Your task to perform on an android device: toggle pop-ups in chrome Image 0: 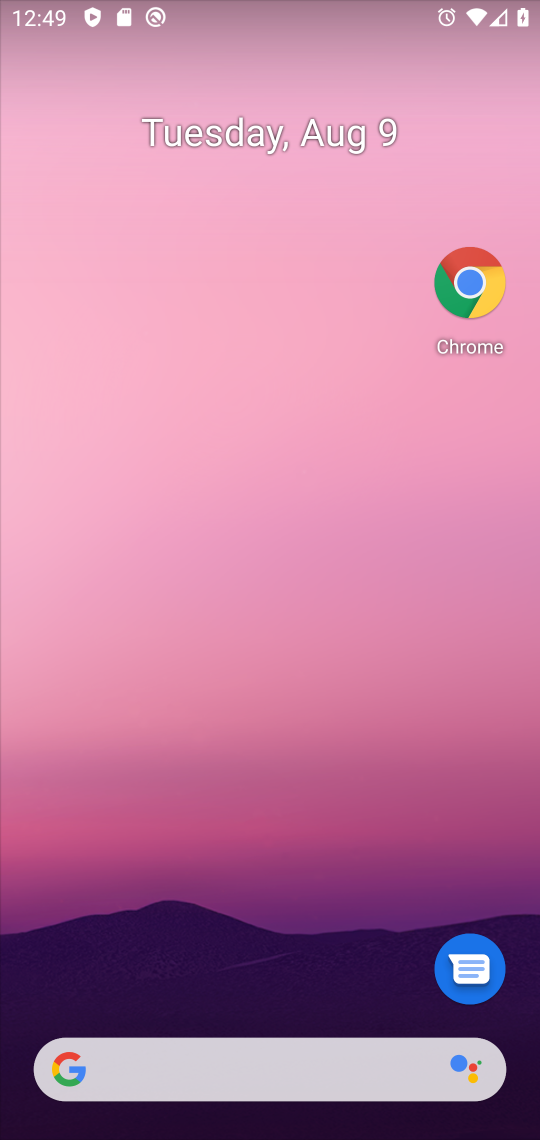
Step 0: drag from (268, 1045) to (354, 86)
Your task to perform on an android device: toggle pop-ups in chrome Image 1: 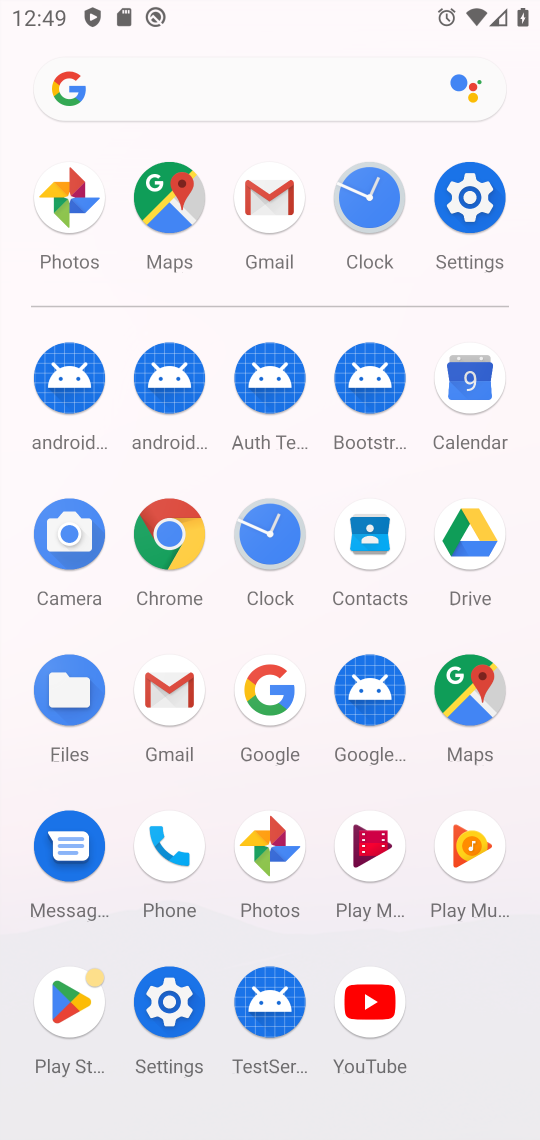
Step 1: click (158, 518)
Your task to perform on an android device: toggle pop-ups in chrome Image 2: 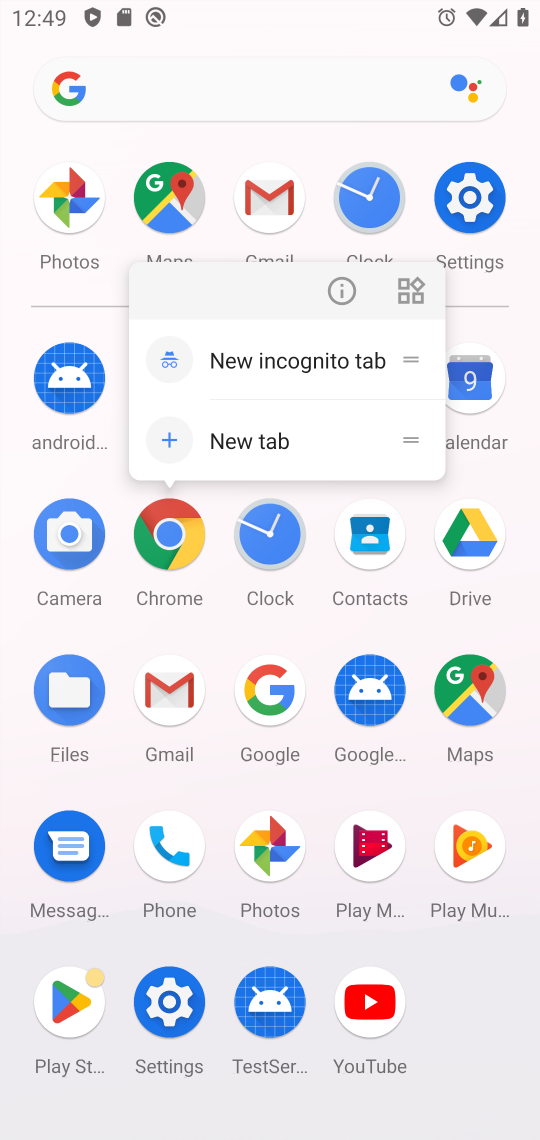
Step 2: click (343, 271)
Your task to perform on an android device: toggle pop-ups in chrome Image 3: 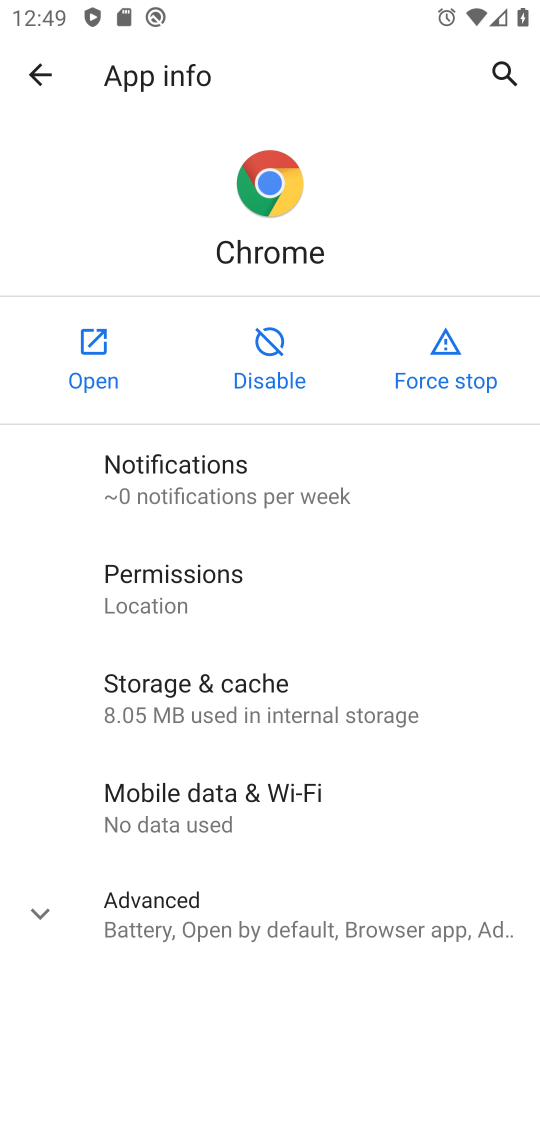
Step 3: click (100, 351)
Your task to perform on an android device: toggle pop-ups in chrome Image 4: 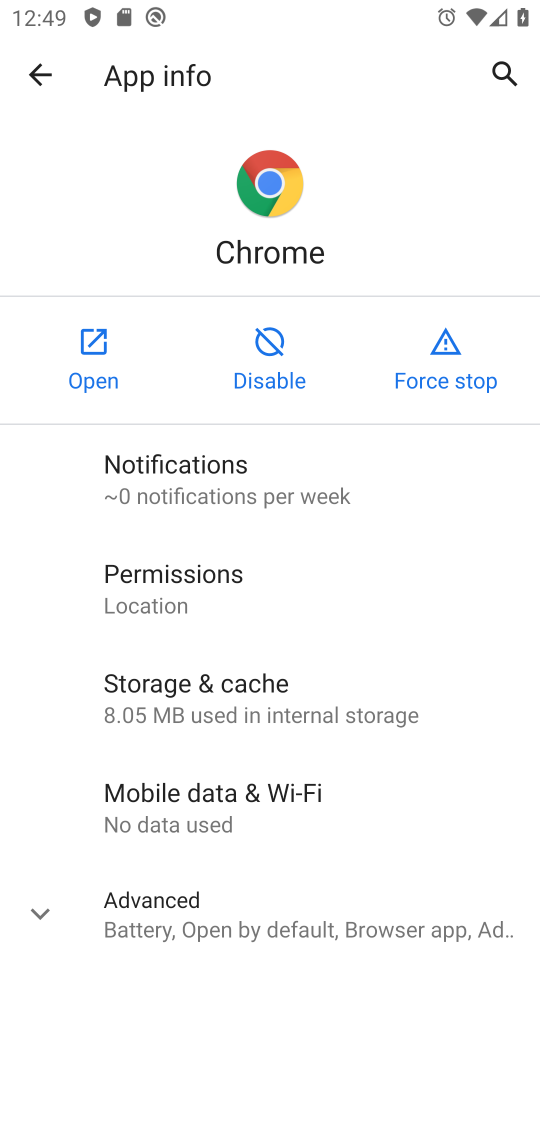
Step 4: click (100, 351)
Your task to perform on an android device: toggle pop-ups in chrome Image 5: 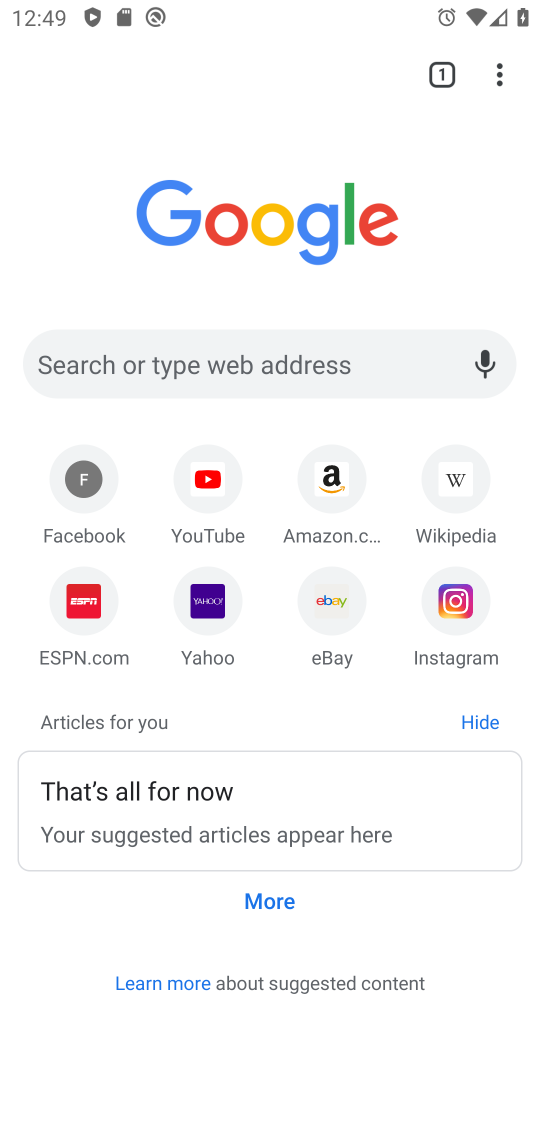
Step 5: drag from (490, 62) to (276, 630)
Your task to perform on an android device: toggle pop-ups in chrome Image 6: 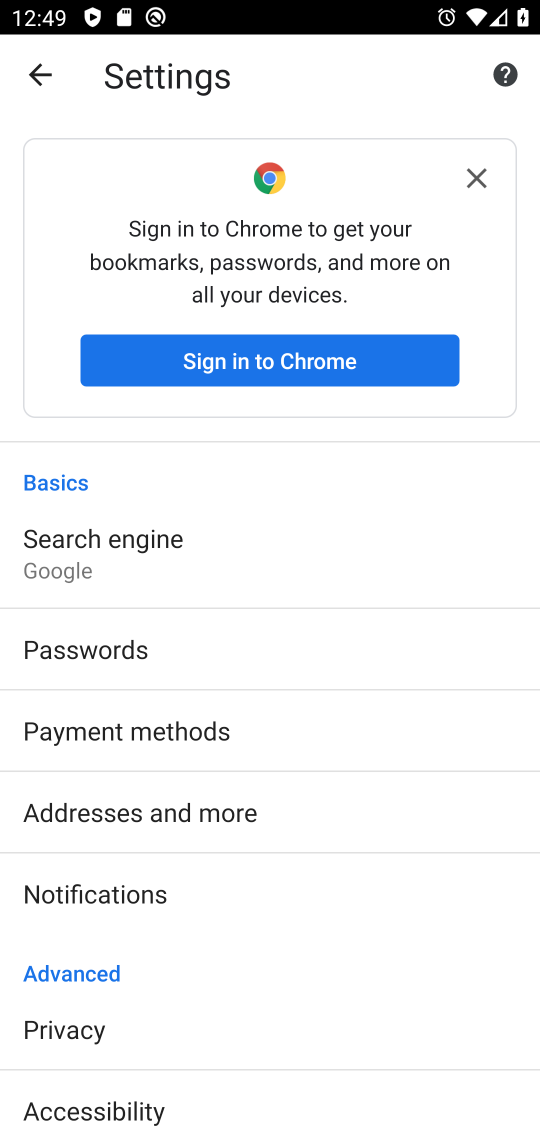
Step 6: drag from (234, 841) to (300, 406)
Your task to perform on an android device: toggle pop-ups in chrome Image 7: 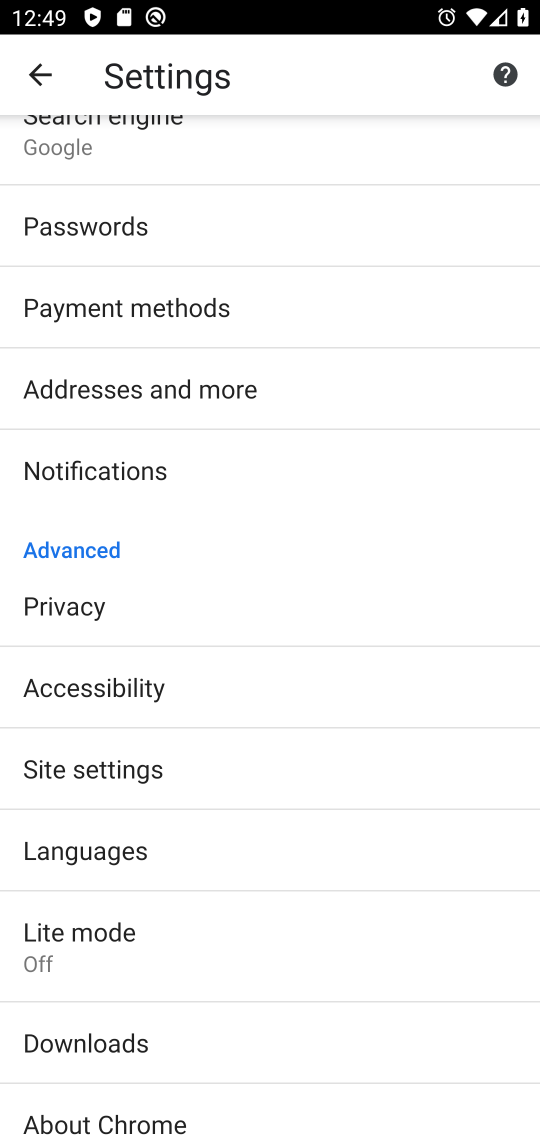
Step 7: drag from (264, 861) to (438, 447)
Your task to perform on an android device: toggle pop-ups in chrome Image 8: 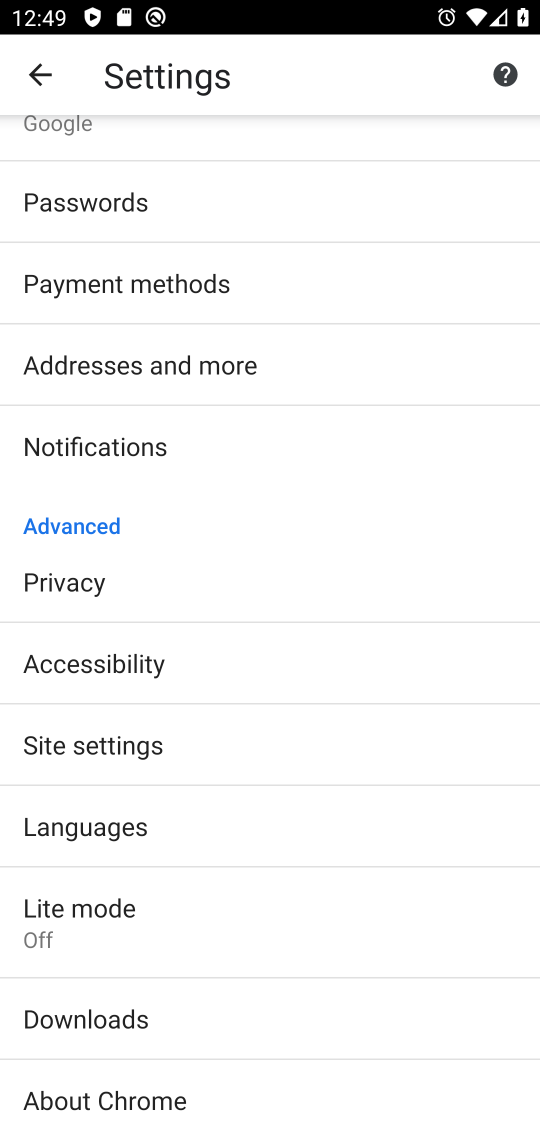
Step 8: click (172, 727)
Your task to perform on an android device: toggle pop-ups in chrome Image 9: 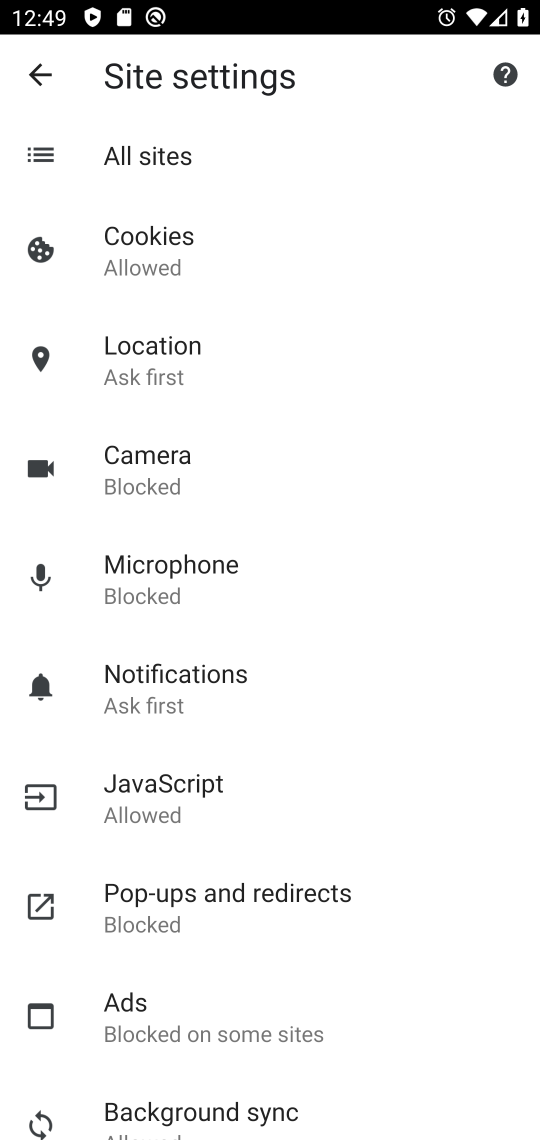
Step 9: click (235, 903)
Your task to perform on an android device: toggle pop-ups in chrome Image 10: 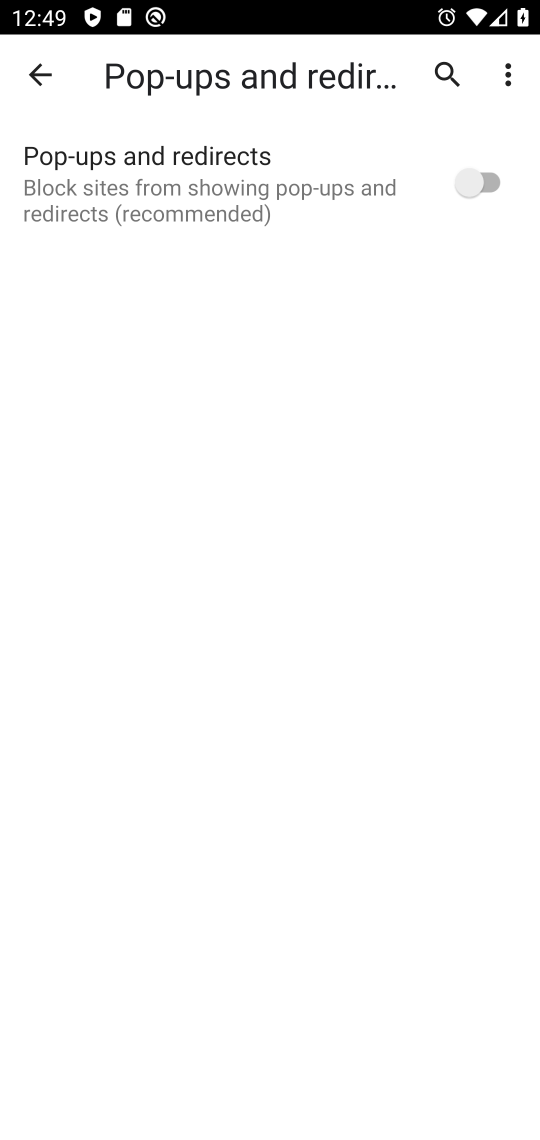
Step 10: click (246, 238)
Your task to perform on an android device: toggle pop-ups in chrome Image 11: 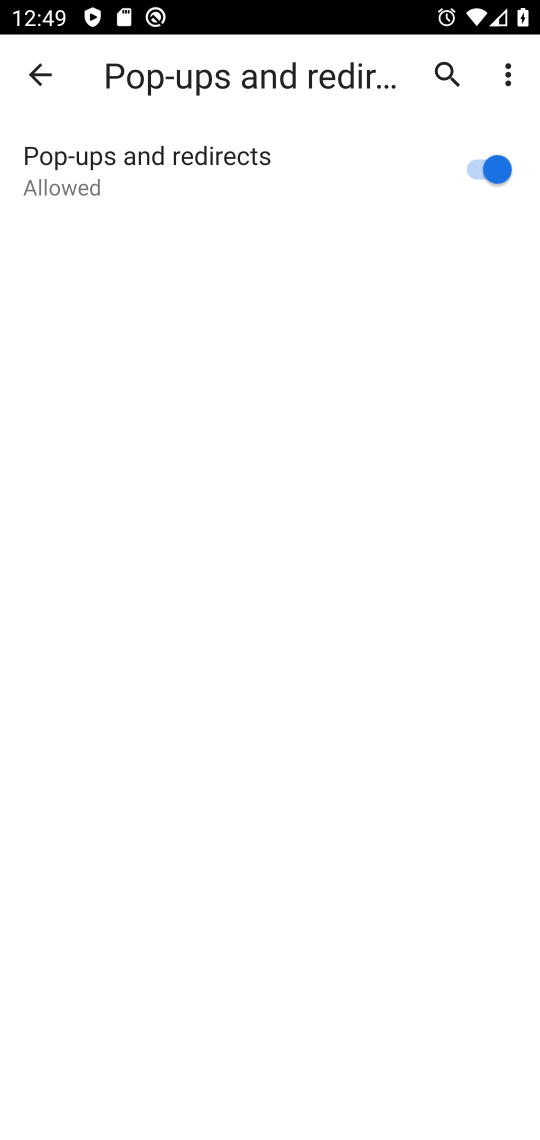
Step 11: task complete